Your task to perform on an android device: Is it going to rain this weekend? Image 0: 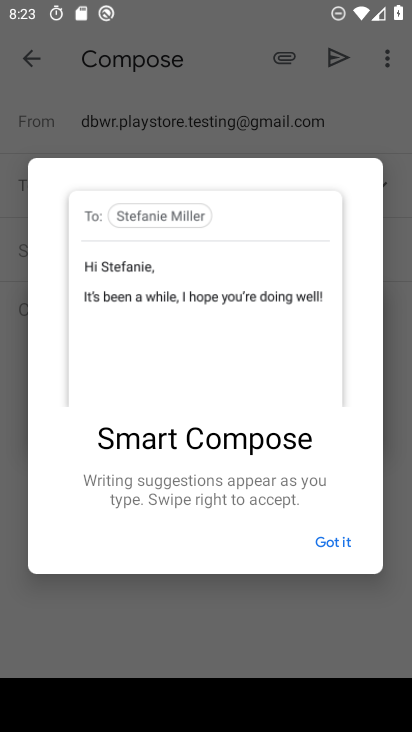
Step 0: press home button
Your task to perform on an android device: Is it going to rain this weekend? Image 1: 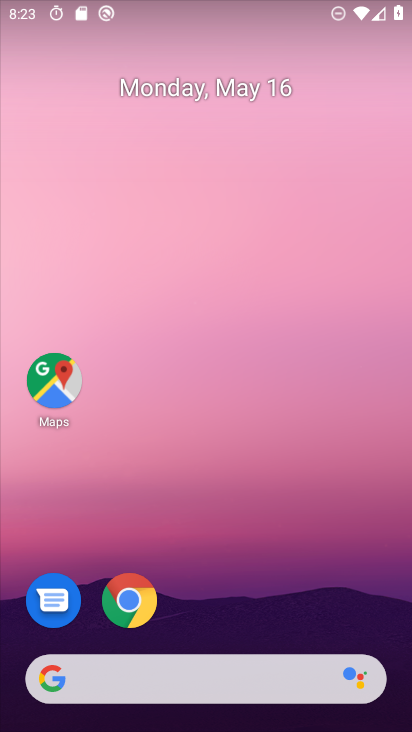
Step 1: click (54, 682)
Your task to perform on an android device: Is it going to rain this weekend? Image 2: 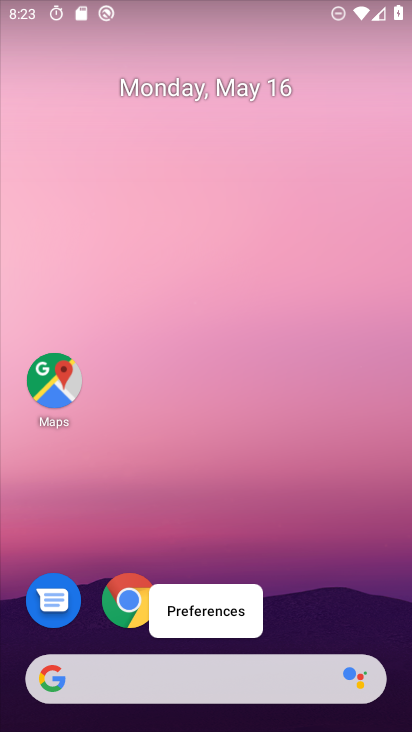
Step 2: click (62, 681)
Your task to perform on an android device: Is it going to rain this weekend? Image 3: 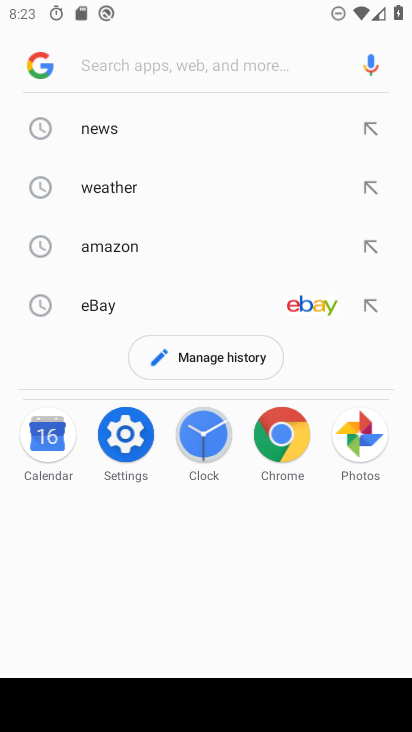
Step 3: click (119, 180)
Your task to perform on an android device: Is it going to rain this weekend? Image 4: 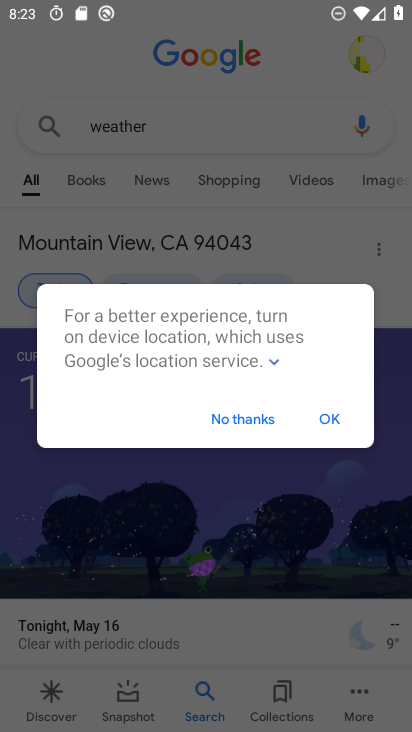
Step 4: click (247, 292)
Your task to perform on an android device: Is it going to rain this weekend? Image 5: 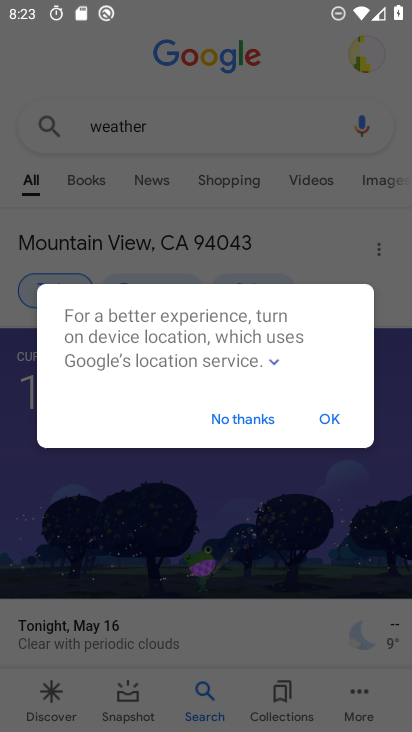
Step 5: click (332, 427)
Your task to perform on an android device: Is it going to rain this weekend? Image 6: 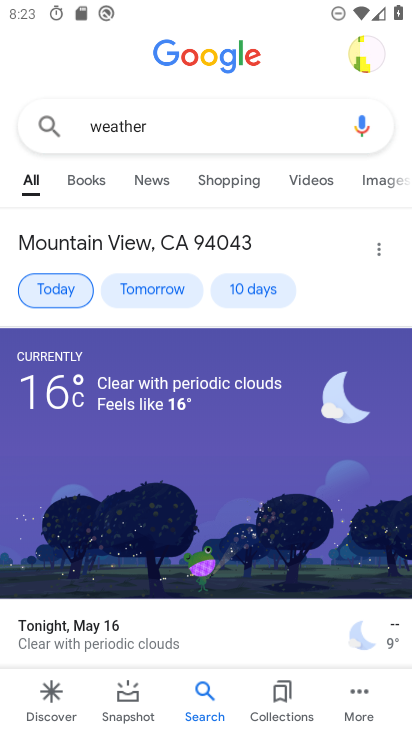
Step 6: click (249, 292)
Your task to perform on an android device: Is it going to rain this weekend? Image 7: 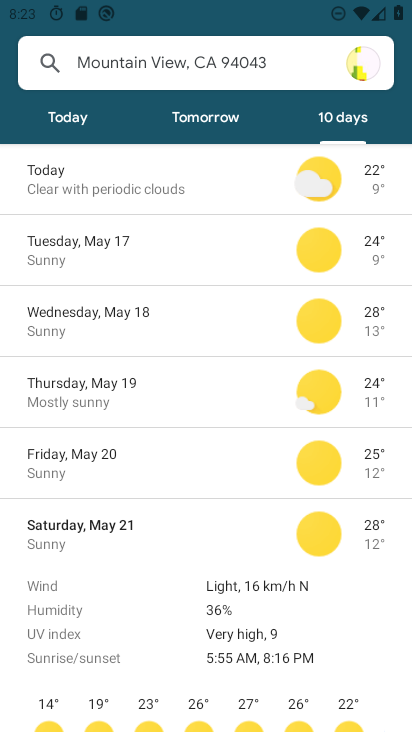
Step 7: task complete